Your task to perform on an android device: Open the phone app and click the voicemail tab. Image 0: 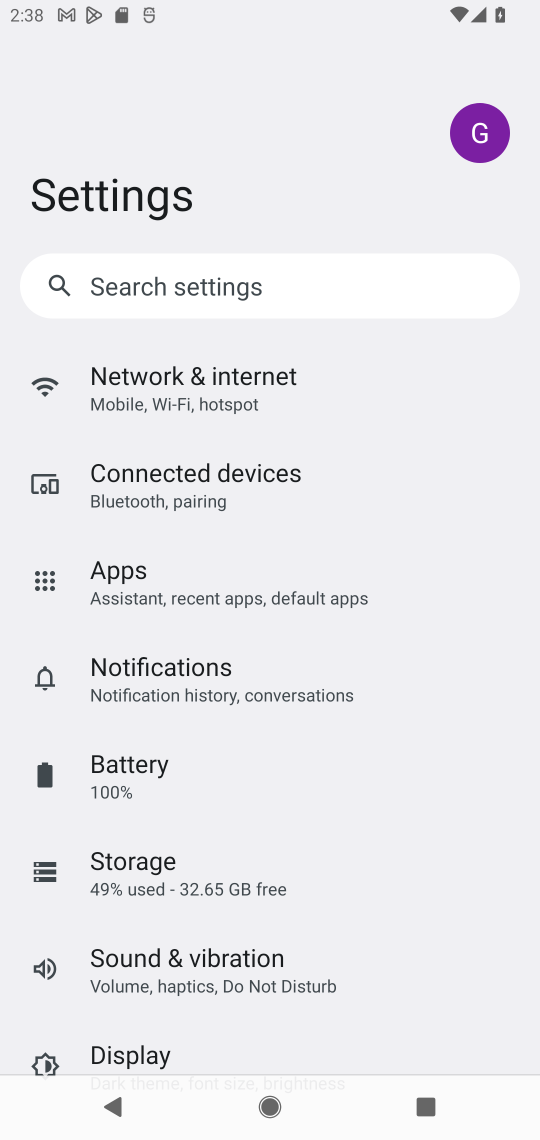
Step 0: press home button
Your task to perform on an android device: Open the phone app and click the voicemail tab. Image 1: 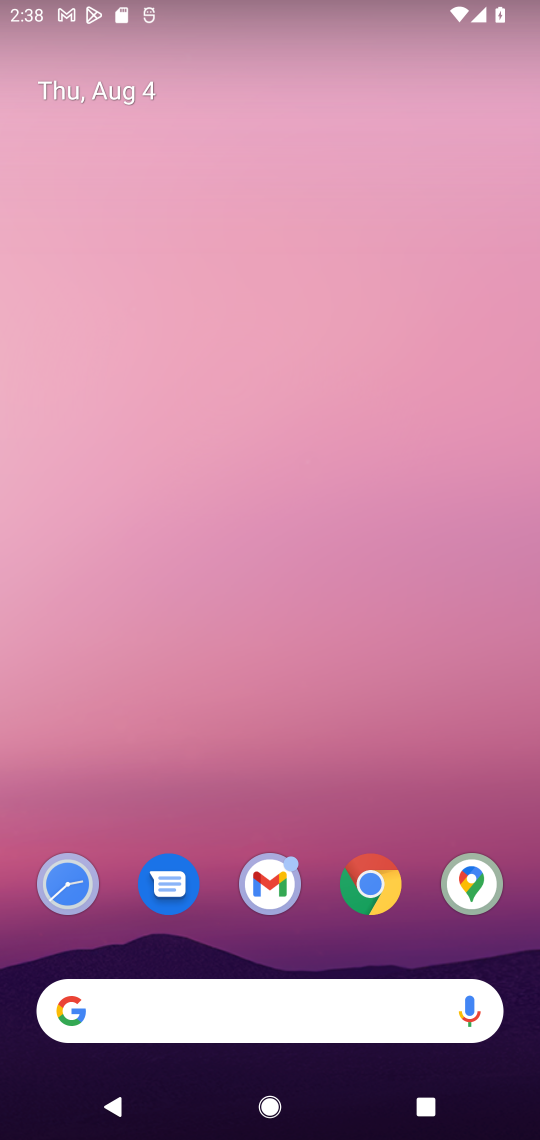
Step 1: drag from (258, 959) to (342, 283)
Your task to perform on an android device: Open the phone app and click the voicemail tab. Image 2: 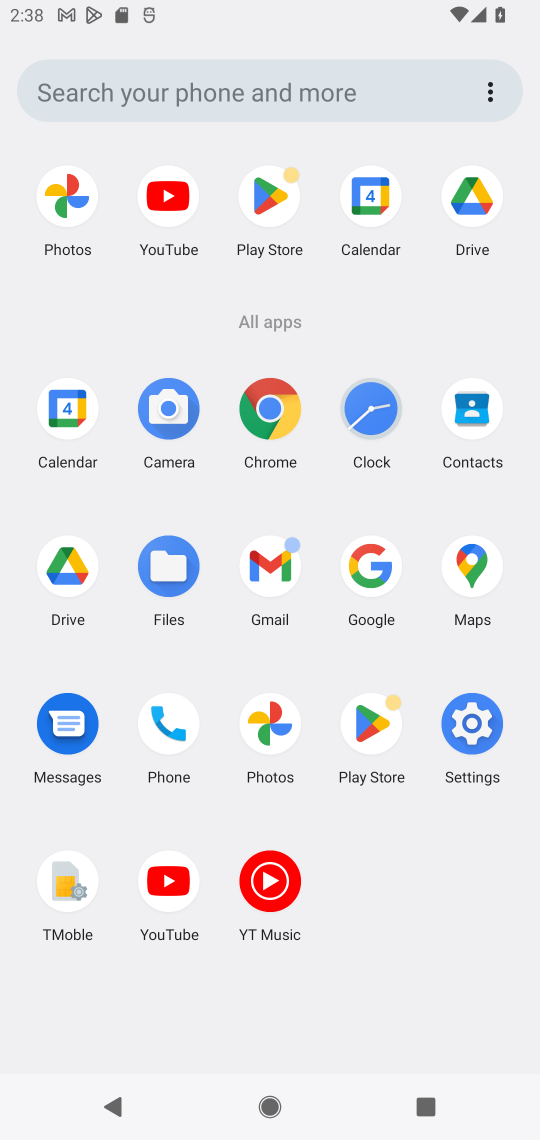
Step 2: click (171, 772)
Your task to perform on an android device: Open the phone app and click the voicemail tab. Image 3: 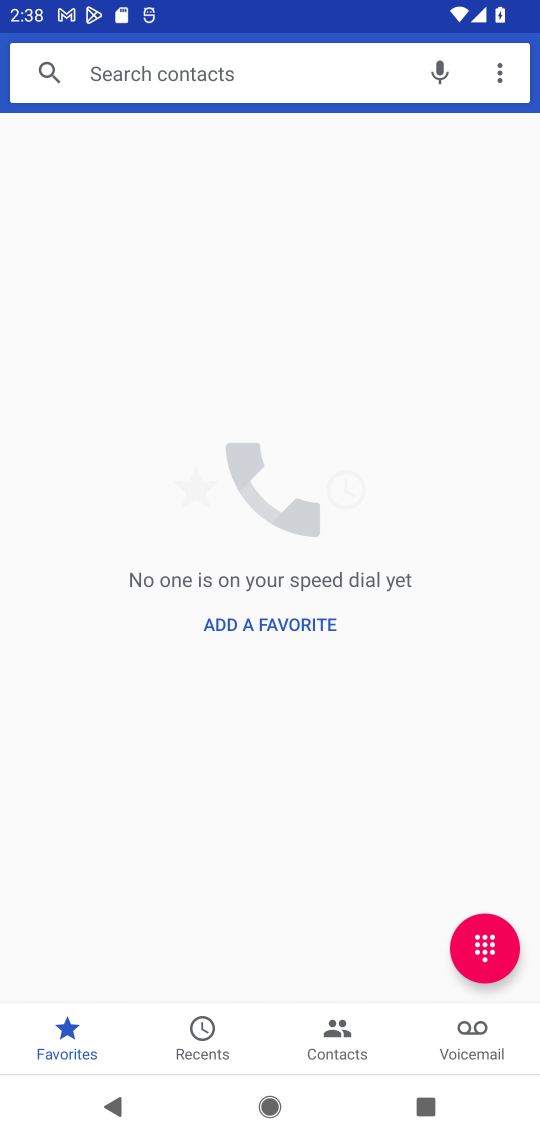
Step 3: click (451, 1024)
Your task to perform on an android device: Open the phone app and click the voicemail tab. Image 4: 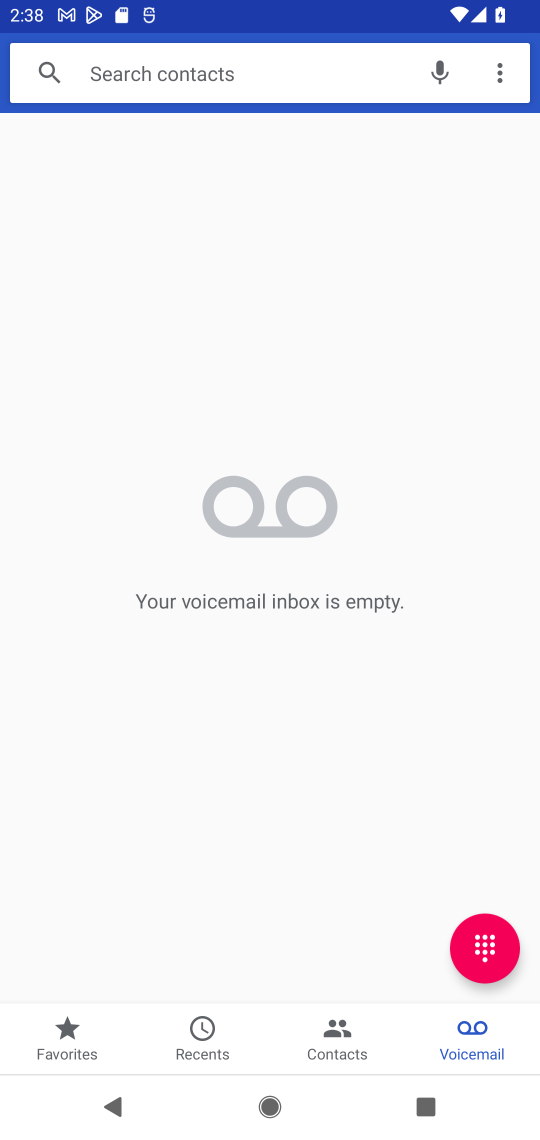
Step 4: task complete